Your task to perform on an android device: stop showing notifications on the lock screen Image 0: 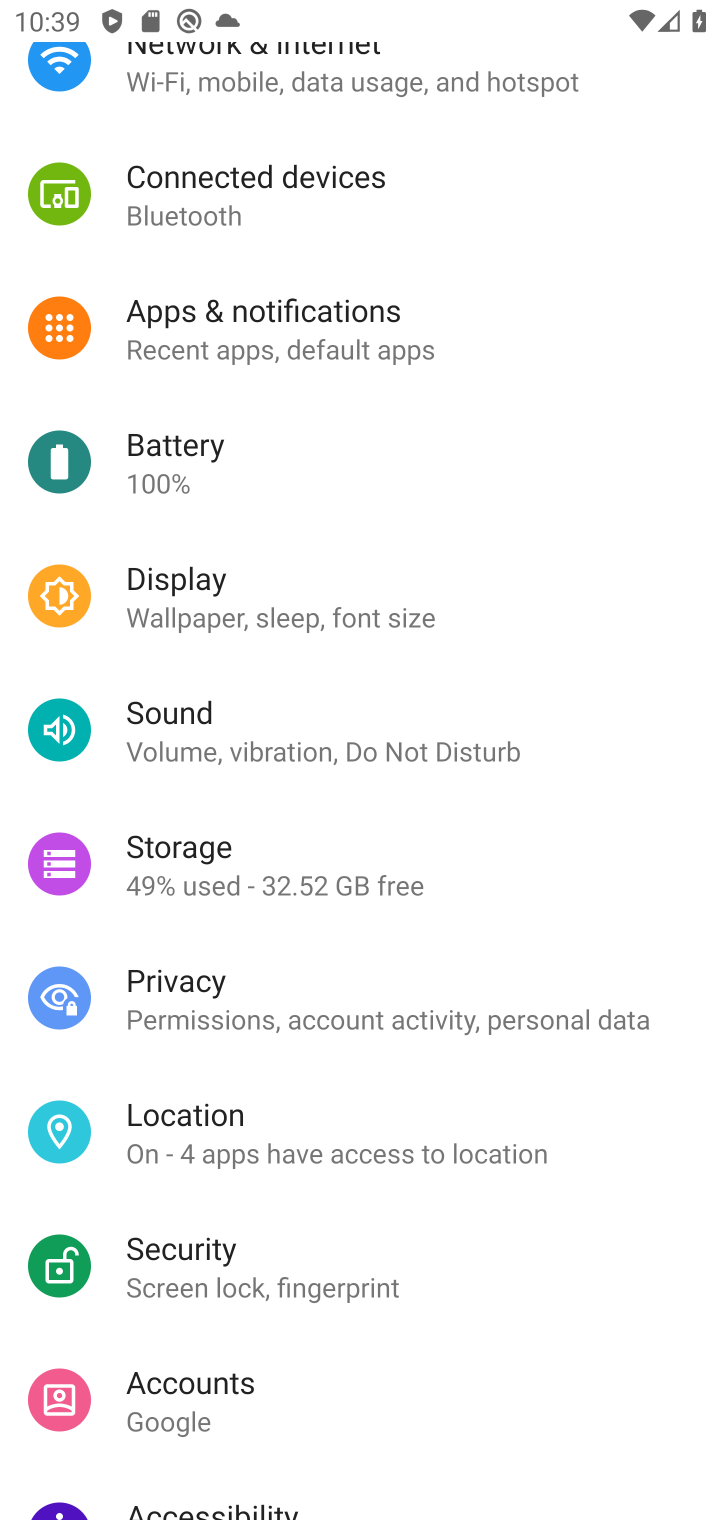
Step 0: drag from (354, 1331) to (294, 1091)
Your task to perform on an android device: stop showing notifications on the lock screen Image 1: 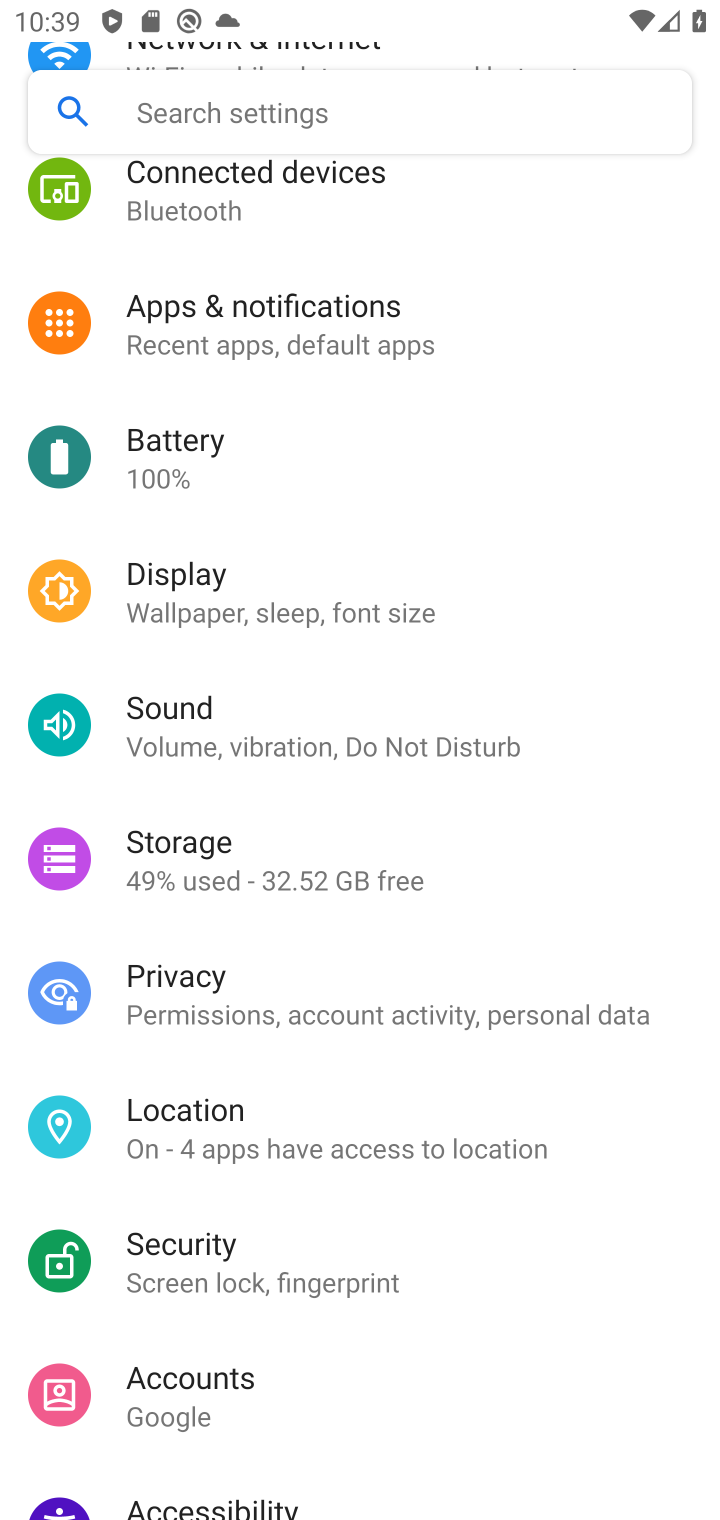
Step 1: click (294, 338)
Your task to perform on an android device: stop showing notifications on the lock screen Image 2: 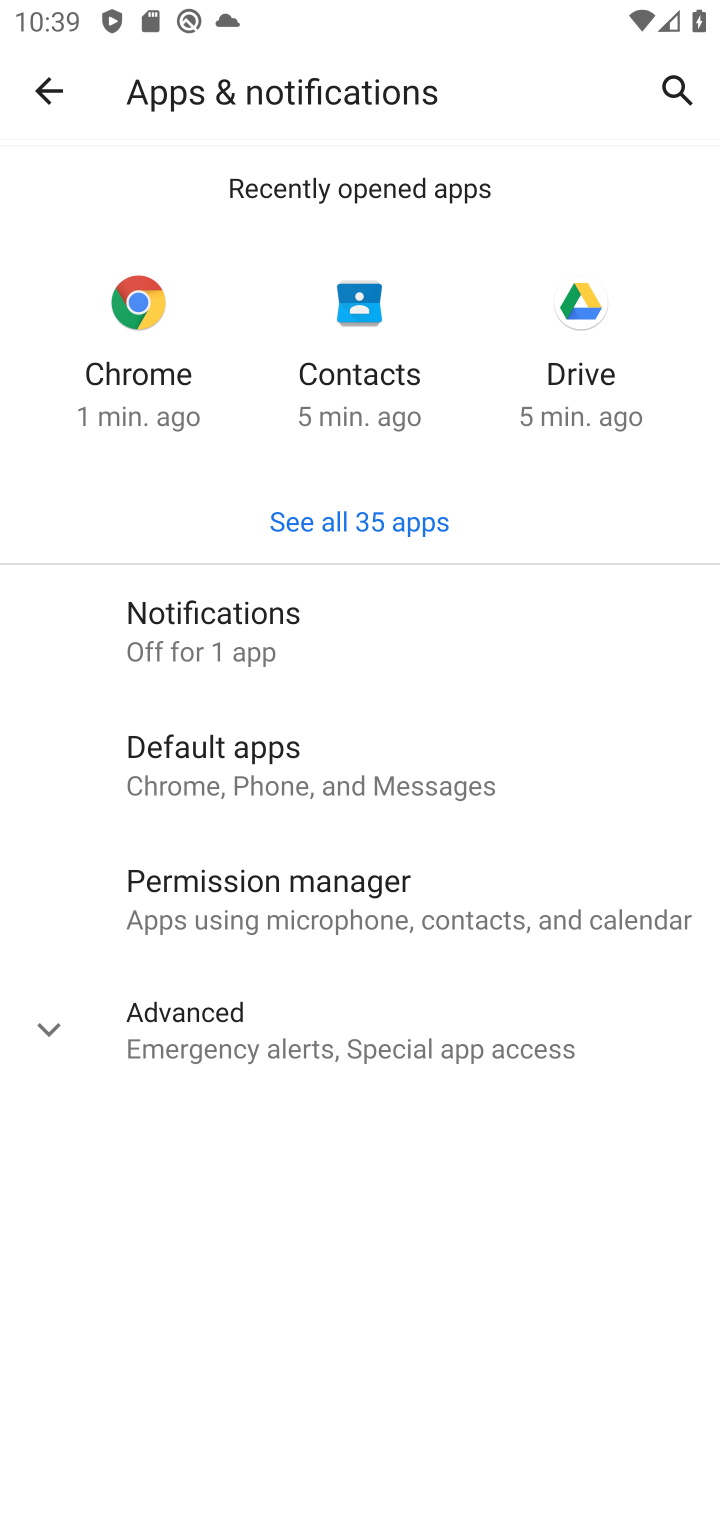
Step 2: click (227, 608)
Your task to perform on an android device: stop showing notifications on the lock screen Image 3: 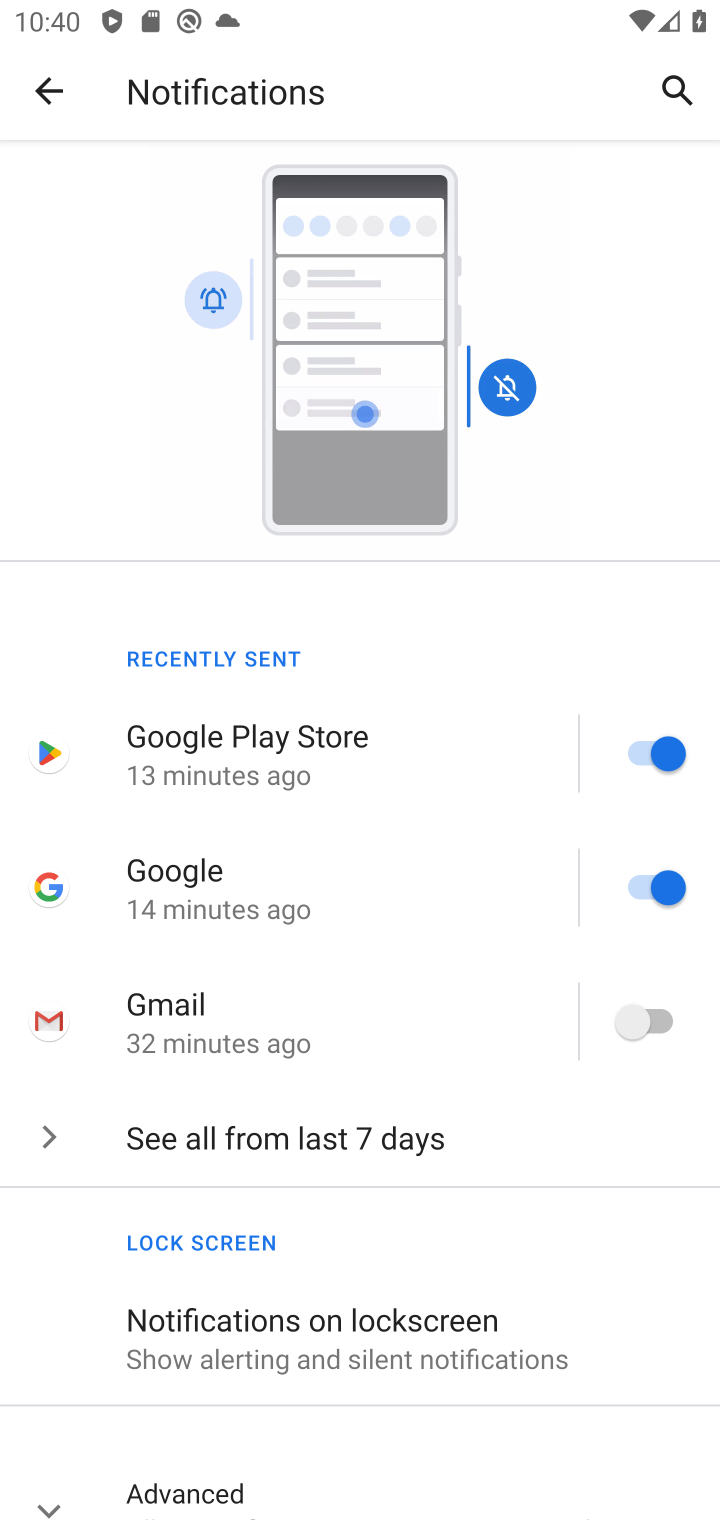
Step 3: click (253, 1345)
Your task to perform on an android device: stop showing notifications on the lock screen Image 4: 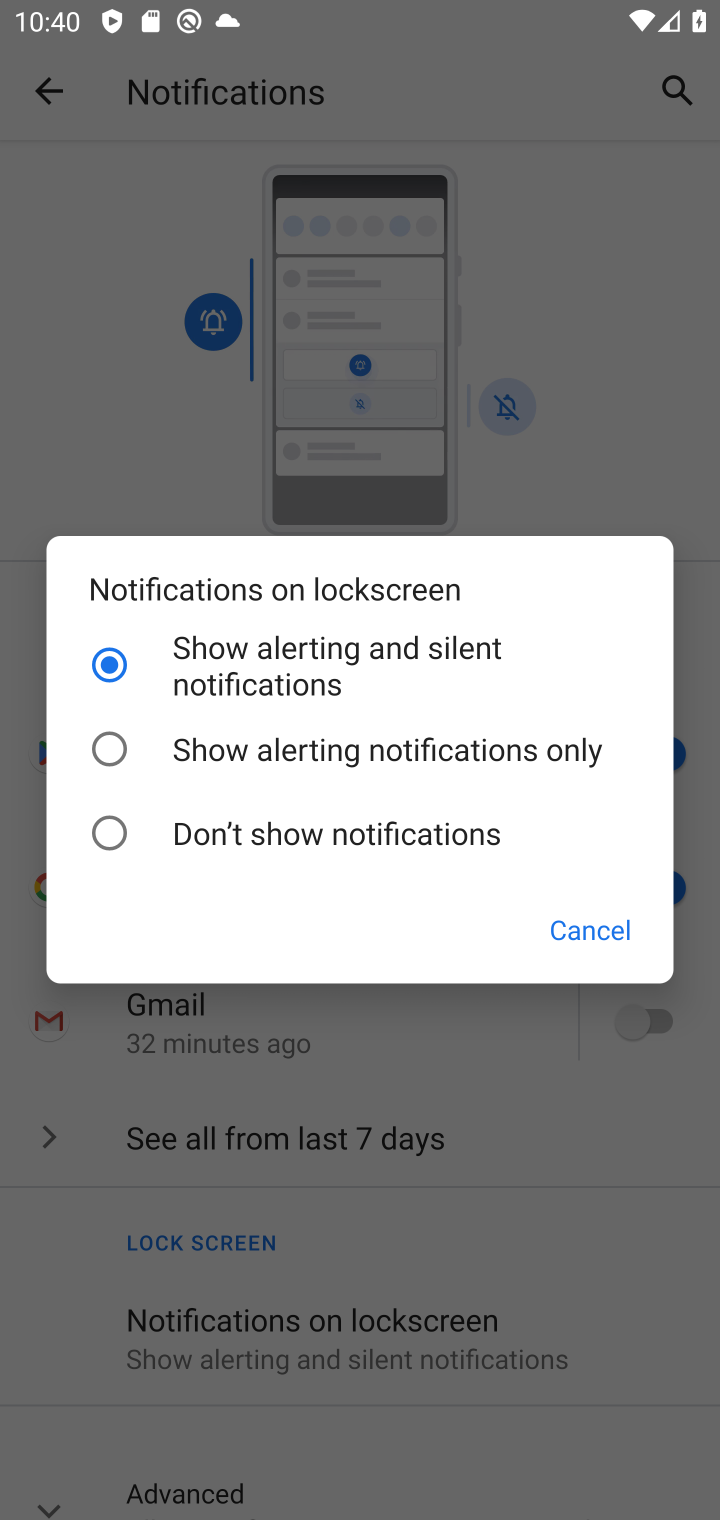
Step 4: click (242, 819)
Your task to perform on an android device: stop showing notifications on the lock screen Image 5: 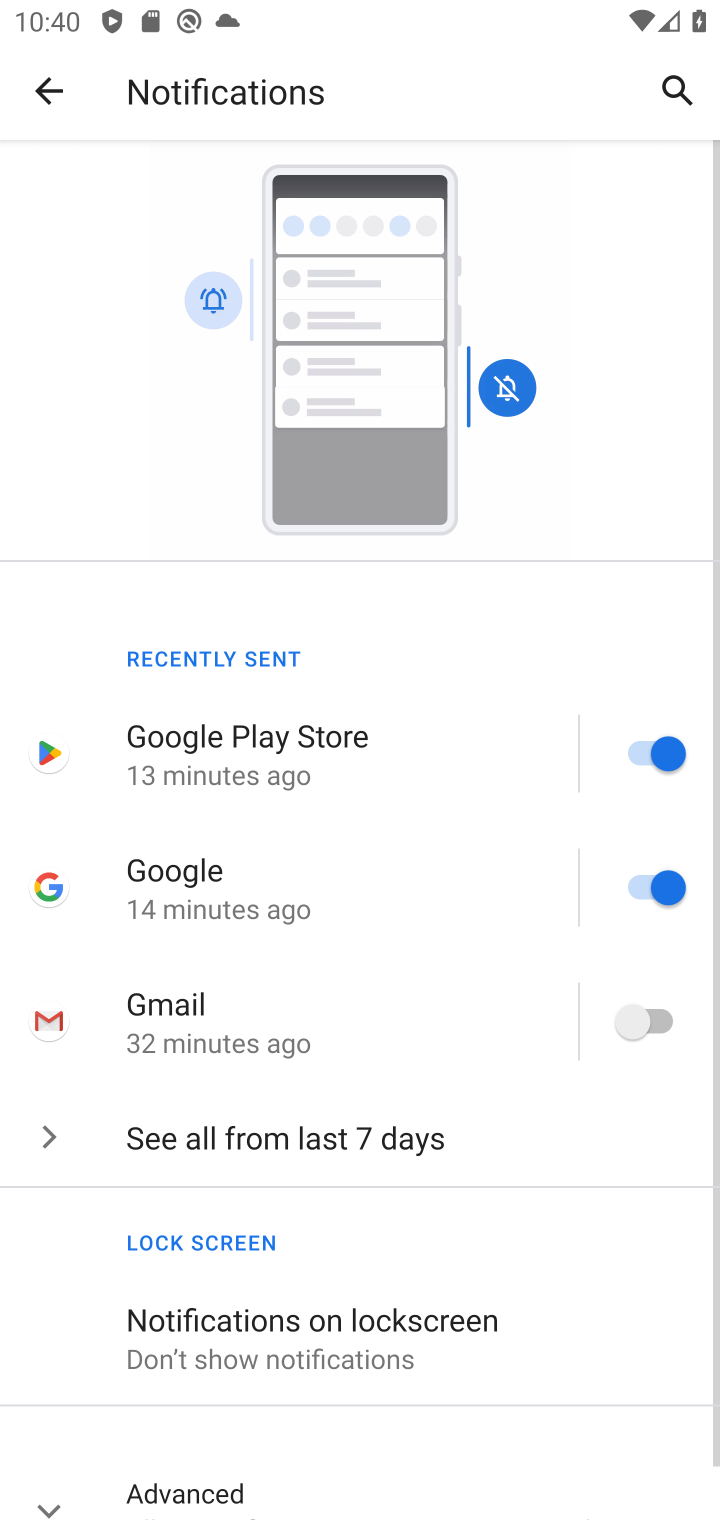
Step 5: task complete